Your task to perform on an android device: Is it going to rain today? Image 0: 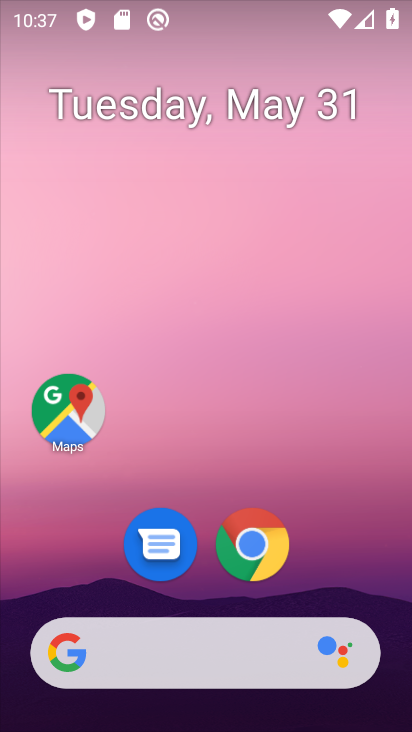
Step 0: drag from (207, 605) to (213, 245)
Your task to perform on an android device: Is it going to rain today? Image 1: 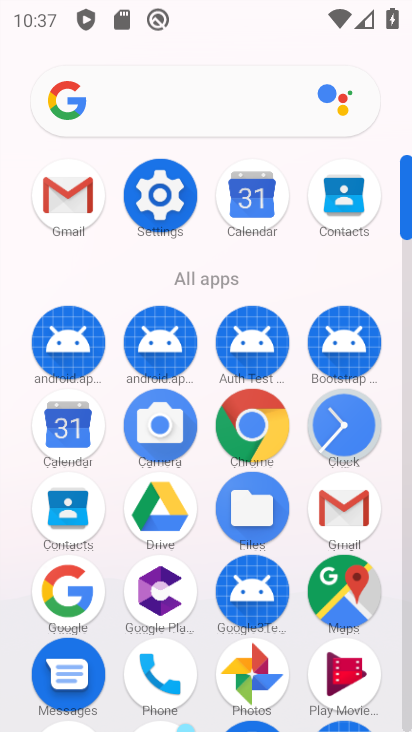
Step 1: click (75, 589)
Your task to perform on an android device: Is it going to rain today? Image 2: 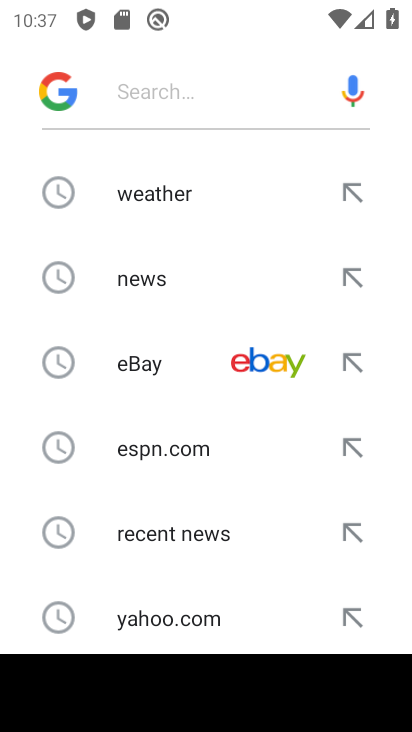
Step 2: click (174, 193)
Your task to perform on an android device: Is it going to rain today? Image 3: 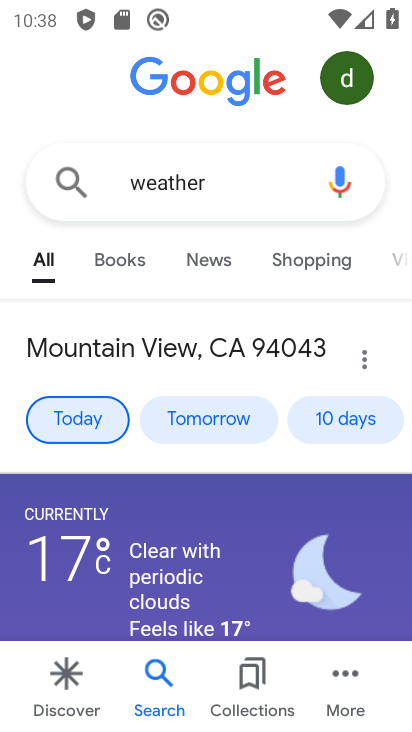
Step 3: task complete